Your task to perform on an android device: When is my next appointment? Image 0: 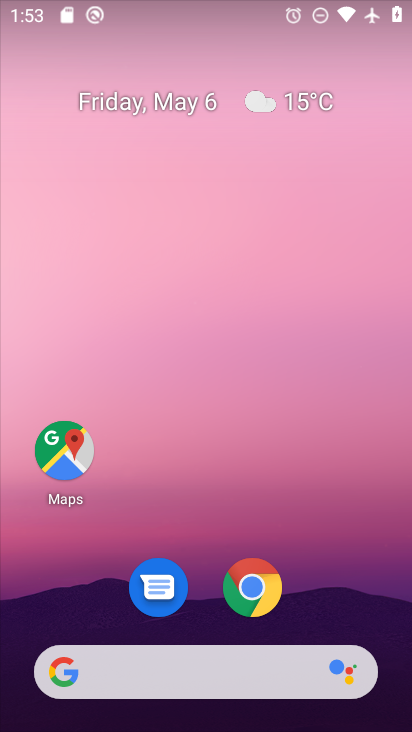
Step 0: drag from (344, 596) to (239, 161)
Your task to perform on an android device: When is my next appointment? Image 1: 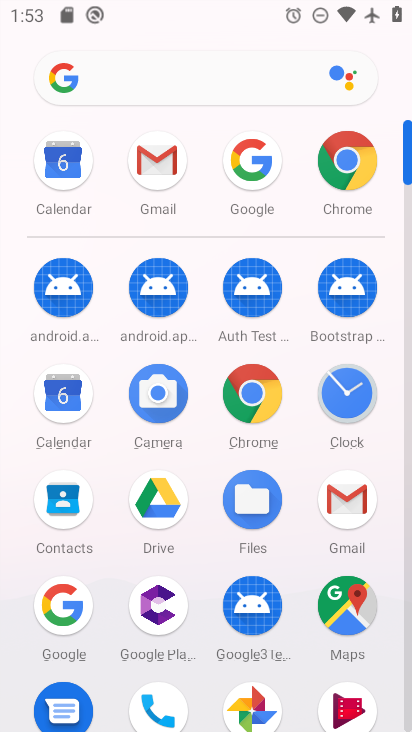
Step 1: click (67, 407)
Your task to perform on an android device: When is my next appointment? Image 2: 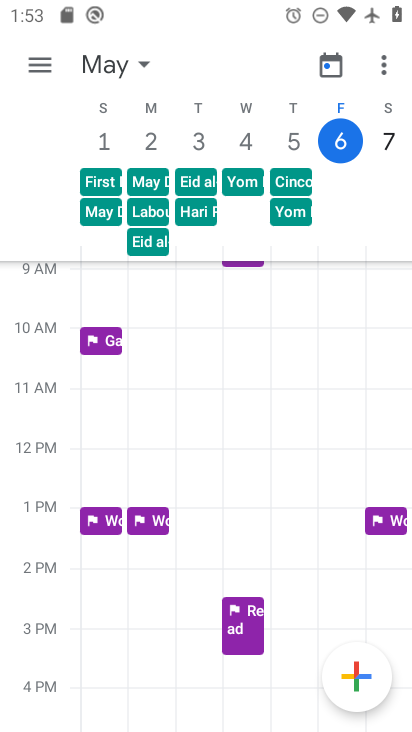
Step 2: task complete